Your task to perform on an android device: Show me the alarms in the clock app Image 0: 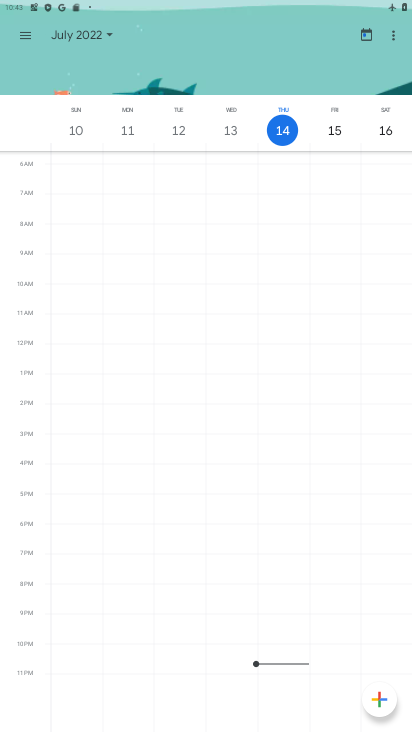
Step 0: press home button
Your task to perform on an android device: Show me the alarms in the clock app Image 1: 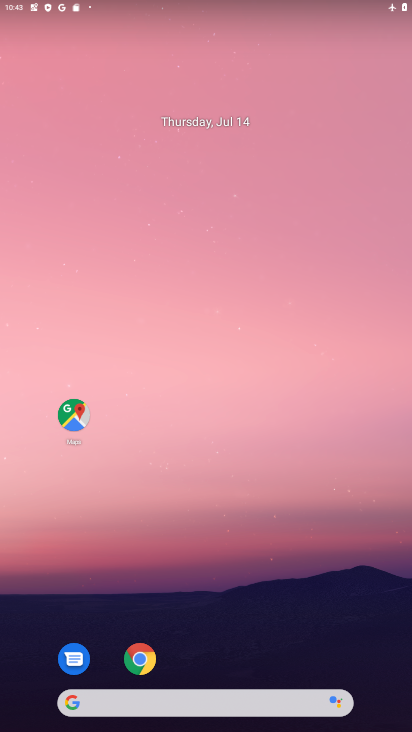
Step 1: drag from (307, 531) to (278, 174)
Your task to perform on an android device: Show me the alarms in the clock app Image 2: 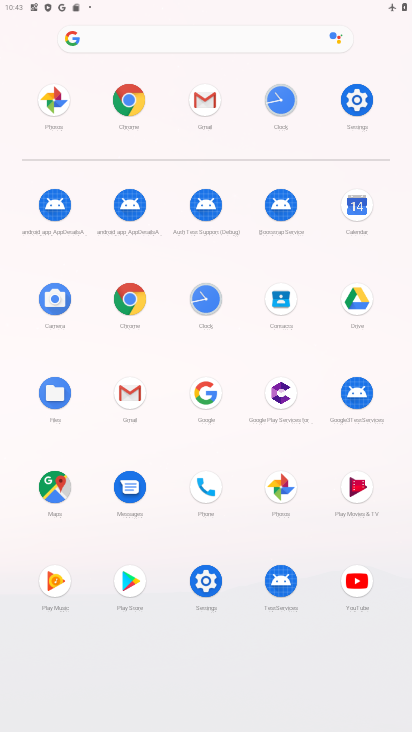
Step 2: click (207, 304)
Your task to perform on an android device: Show me the alarms in the clock app Image 3: 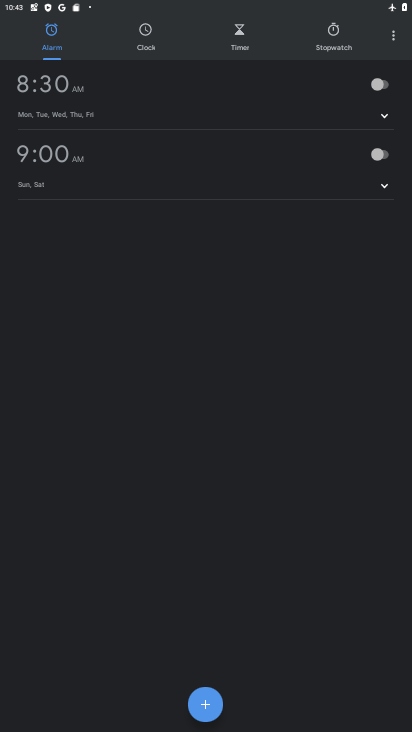
Step 3: task complete